Your task to perform on an android device: Toggle the flashlight Image 0: 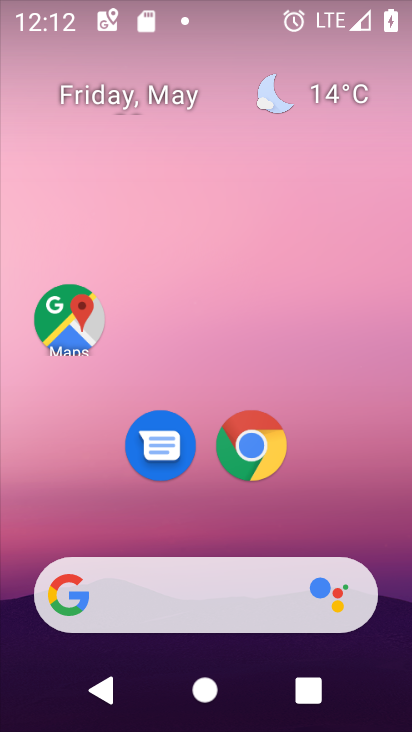
Step 0: drag from (187, 530) to (238, 238)
Your task to perform on an android device: Toggle the flashlight Image 1: 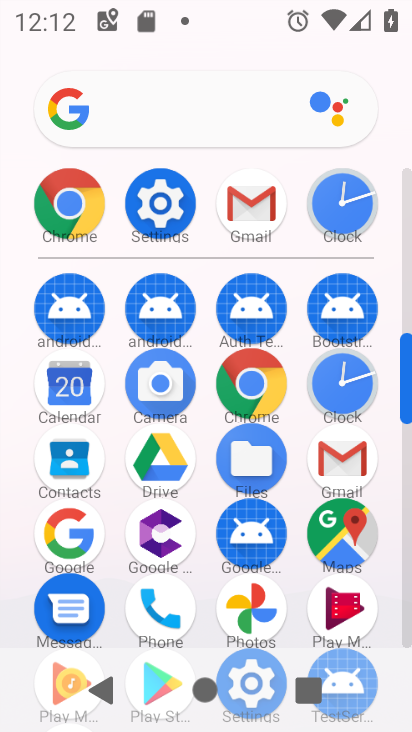
Step 1: click (163, 215)
Your task to perform on an android device: Toggle the flashlight Image 2: 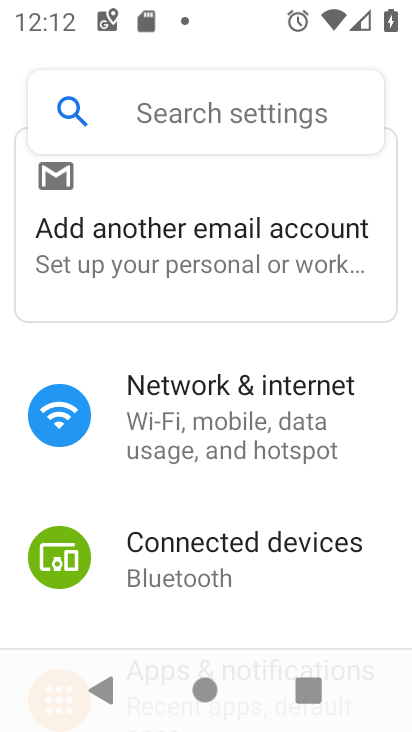
Step 2: task complete